Your task to perform on an android device: Open calendar and show me the third week of next month Image 0: 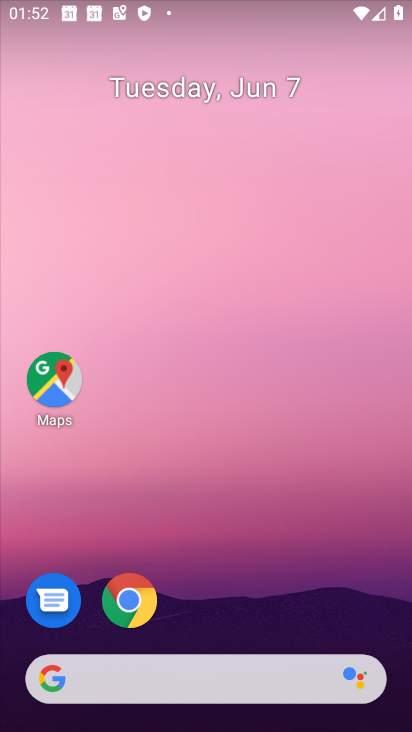
Step 0: drag from (191, 709) to (168, 139)
Your task to perform on an android device: Open calendar and show me the third week of next month Image 1: 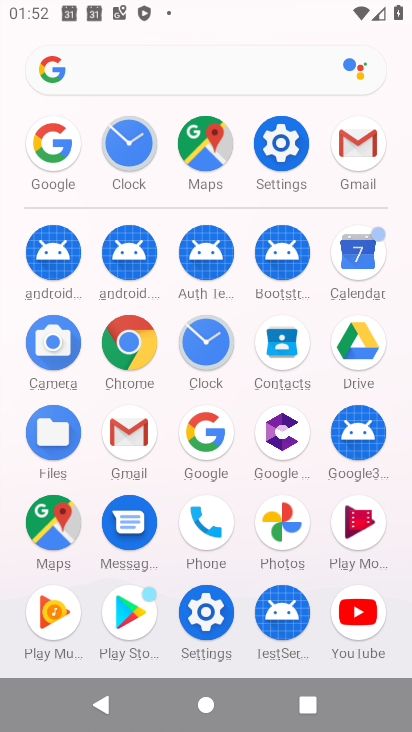
Step 1: click (355, 244)
Your task to perform on an android device: Open calendar and show me the third week of next month Image 2: 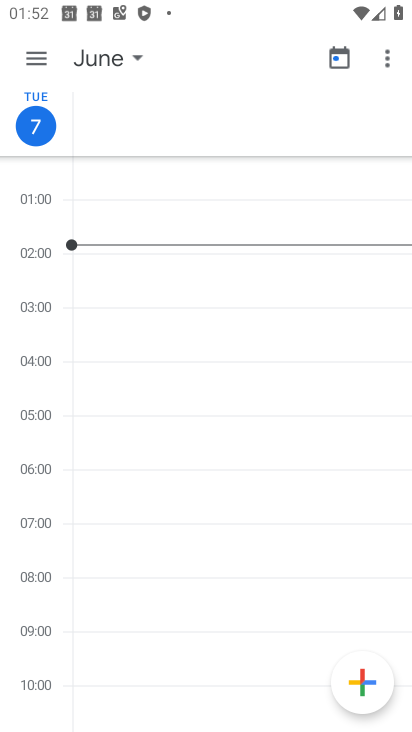
Step 2: click (89, 57)
Your task to perform on an android device: Open calendar and show me the third week of next month Image 3: 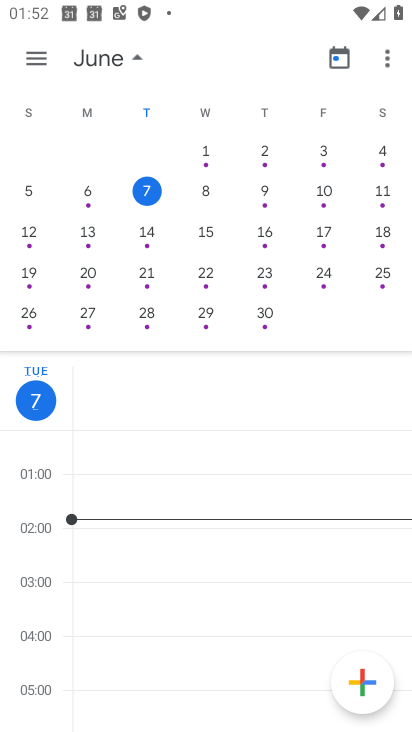
Step 3: drag from (352, 238) to (16, 271)
Your task to perform on an android device: Open calendar and show me the third week of next month Image 4: 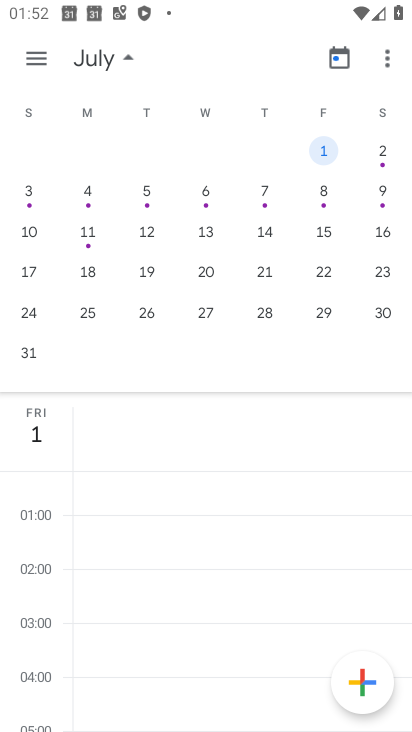
Step 4: click (88, 268)
Your task to perform on an android device: Open calendar and show me the third week of next month Image 5: 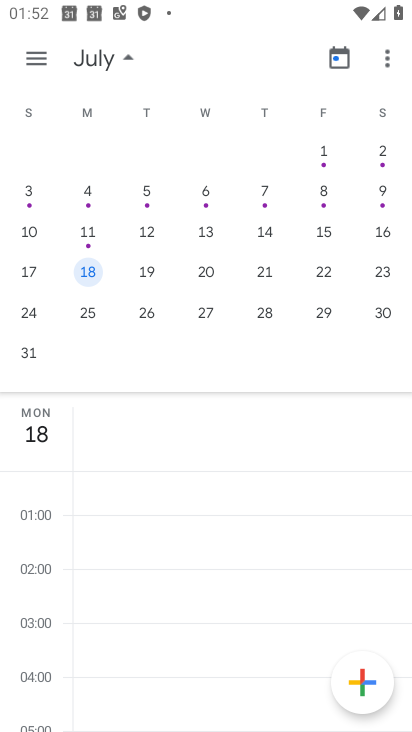
Step 5: click (36, 56)
Your task to perform on an android device: Open calendar and show me the third week of next month Image 6: 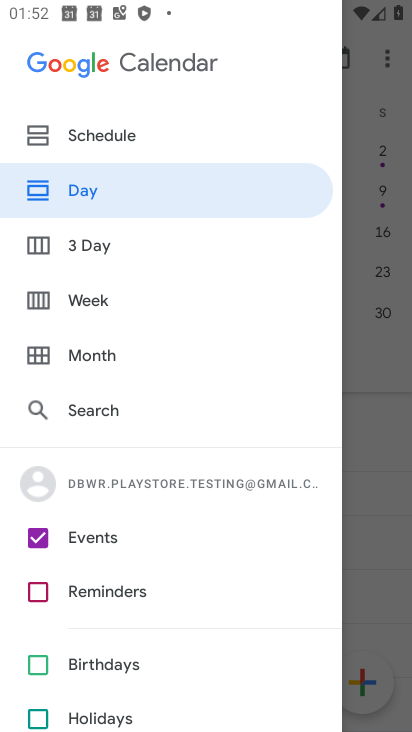
Step 6: click (94, 297)
Your task to perform on an android device: Open calendar and show me the third week of next month Image 7: 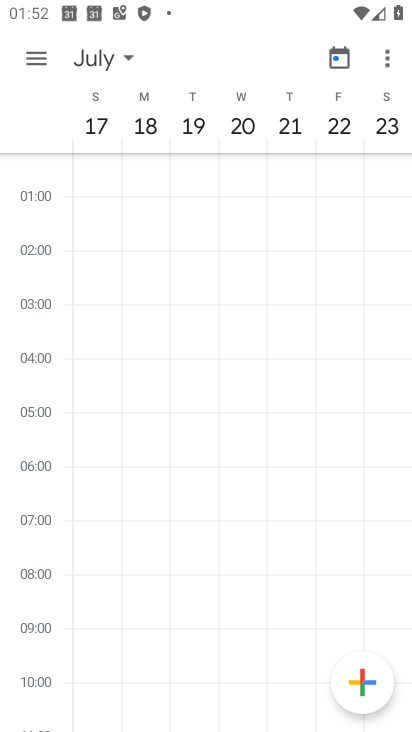
Step 7: task complete